Your task to perform on an android device: Open the Play Movies app and select the watchlist tab. Image 0: 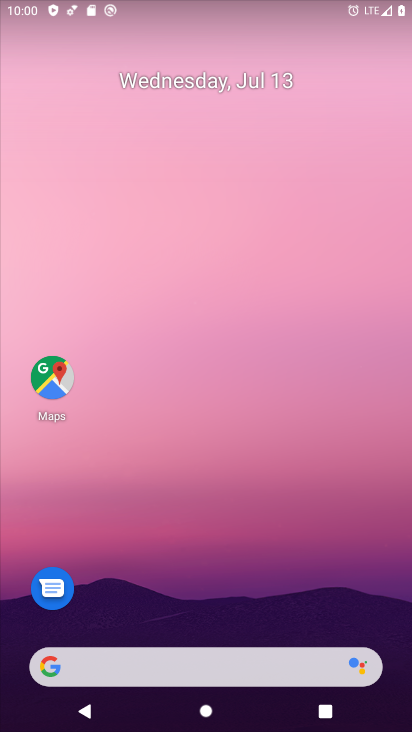
Step 0: drag from (244, 686) to (177, 103)
Your task to perform on an android device: Open the Play Movies app and select the watchlist tab. Image 1: 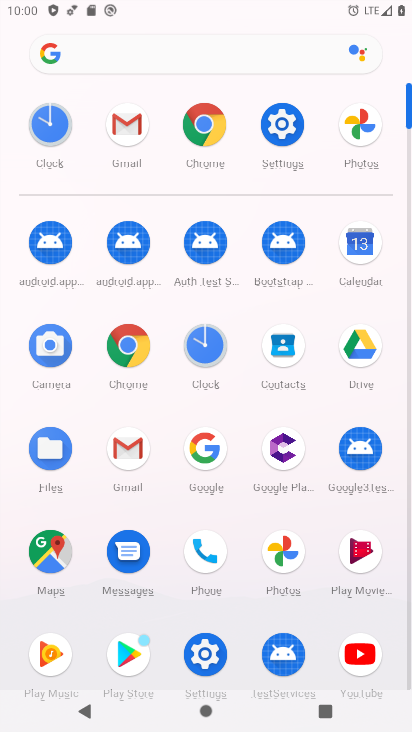
Step 1: click (366, 552)
Your task to perform on an android device: Open the Play Movies app and select the watchlist tab. Image 2: 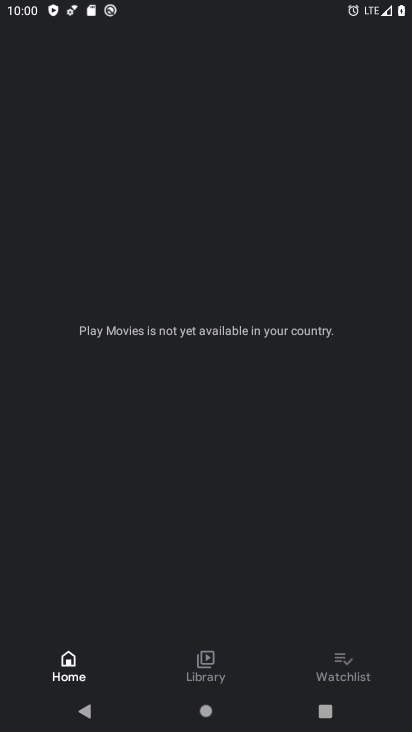
Step 2: click (363, 678)
Your task to perform on an android device: Open the Play Movies app and select the watchlist tab. Image 3: 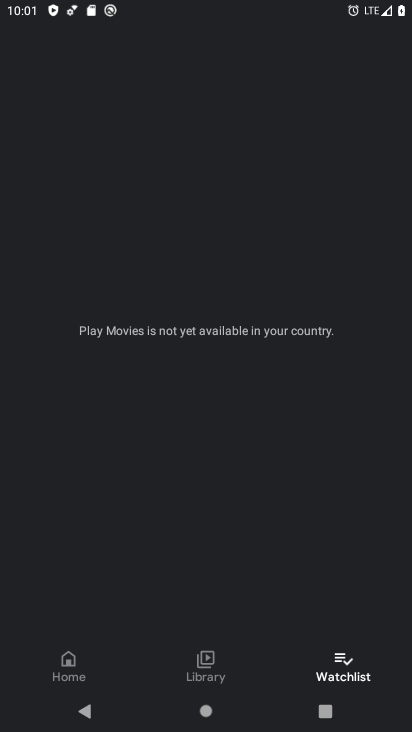
Step 3: task complete